Your task to perform on an android device: set an alarm Image 0: 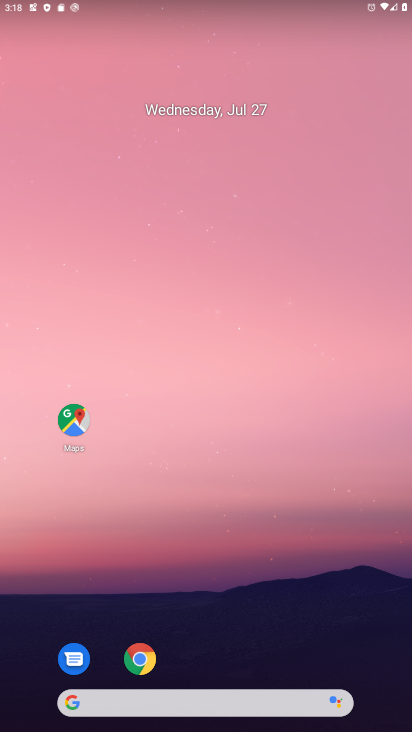
Step 0: drag from (240, 642) to (194, 80)
Your task to perform on an android device: set an alarm Image 1: 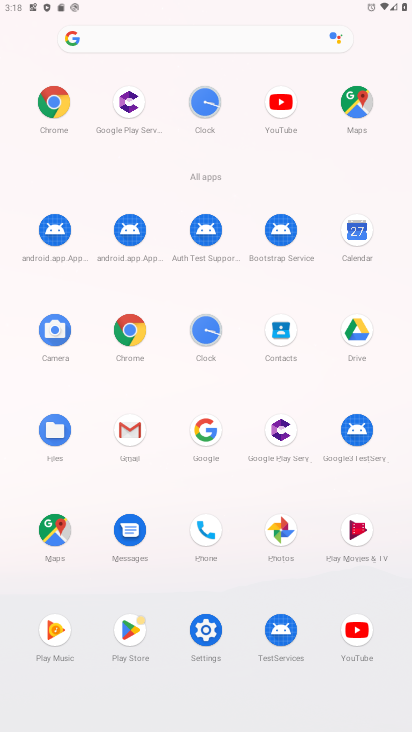
Step 1: click (207, 102)
Your task to perform on an android device: set an alarm Image 2: 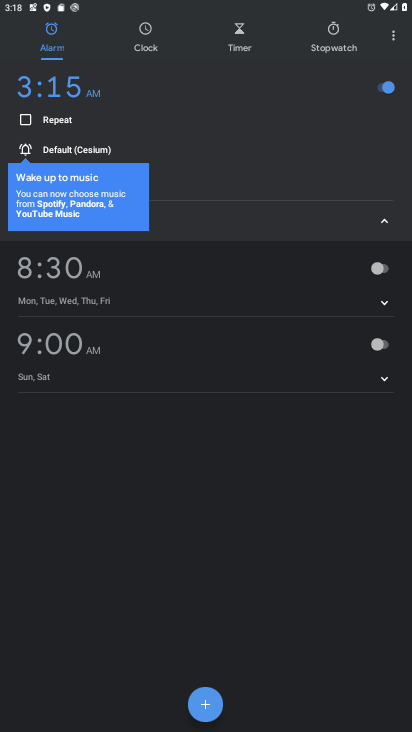
Step 2: click (203, 709)
Your task to perform on an android device: set an alarm Image 3: 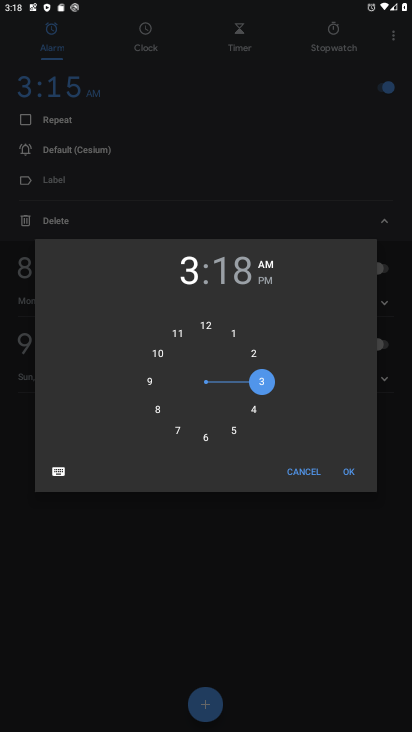
Step 3: click (352, 479)
Your task to perform on an android device: set an alarm Image 4: 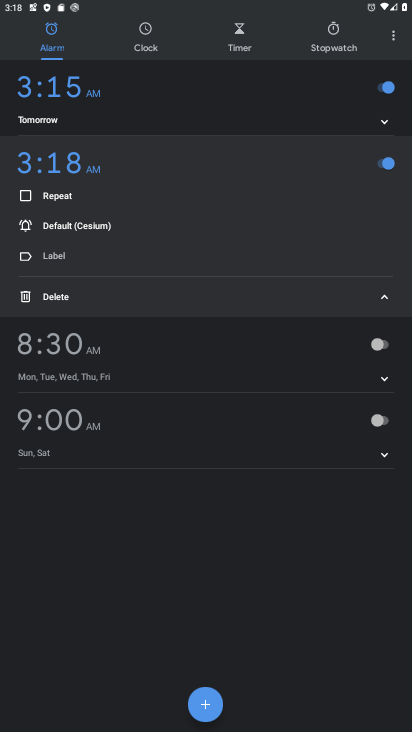
Step 4: task complete